Your task to perform on an android device: turn off airplane mode Image 0: 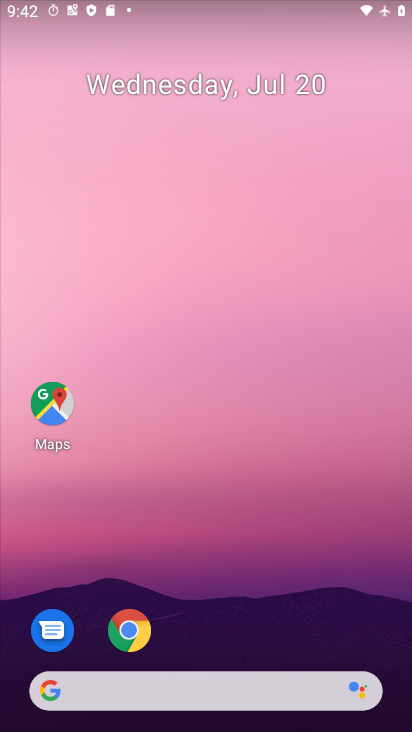
Step 0: drag from (238, 645) to (288, 161)
Your task to perform on an android device: turn off airplane mode Image 1: 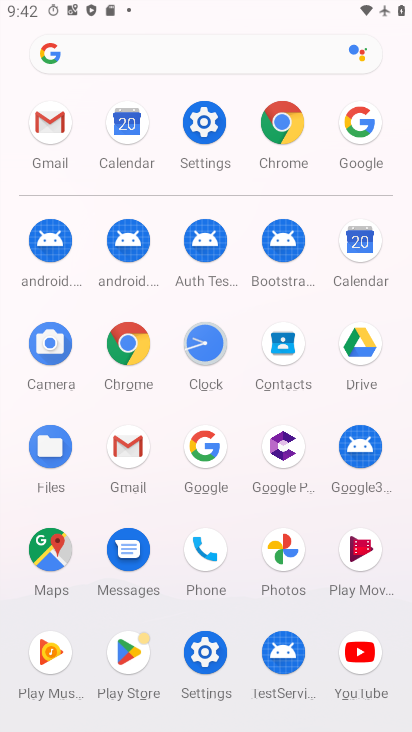
Step 1: click (213, 137)
Your task to perform on an android device: turn off airplane mode Image 2: 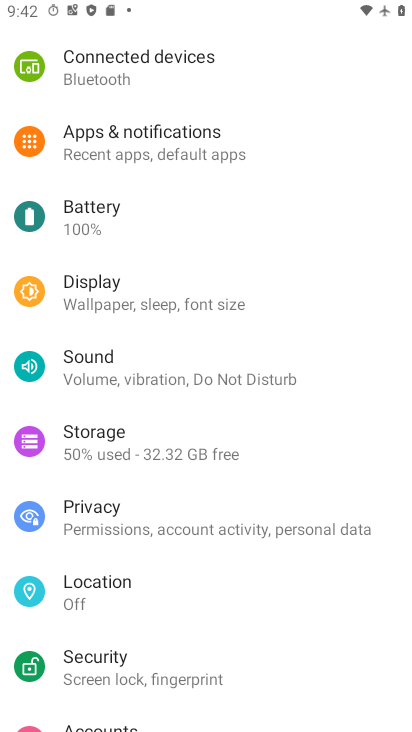
Step 2: drag from (193, 182) to (189, 529)
Your task to perform on an android device: turn off airplane mode Image 3: 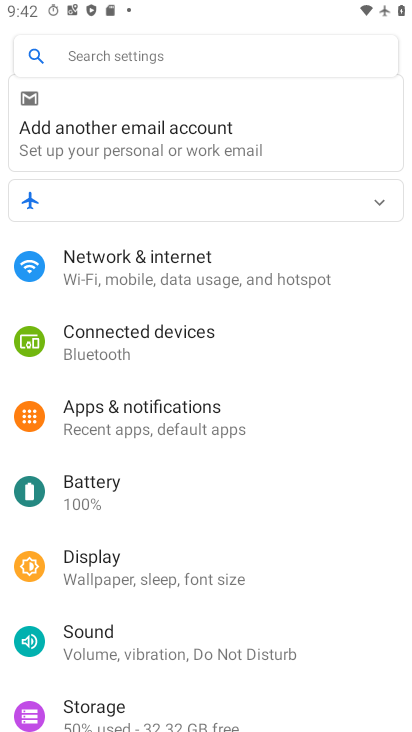
Step 3: click (206, 255)
Your task to perform on an android device: turn off airplane mode Image 4: 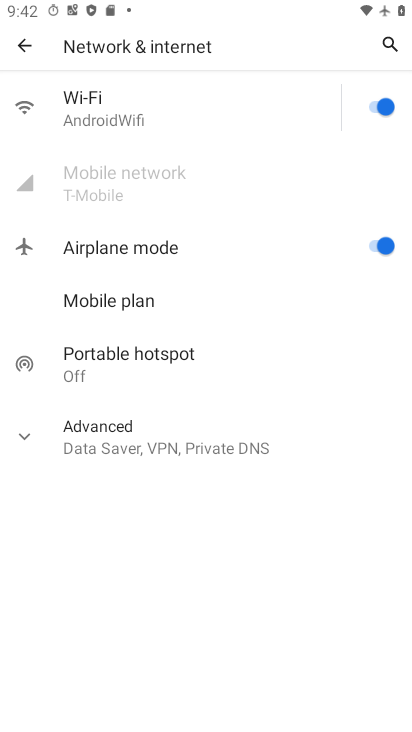
Step 4: click (373, 245)
Your task to perform on an android device: turn off airplane mode Image 5: 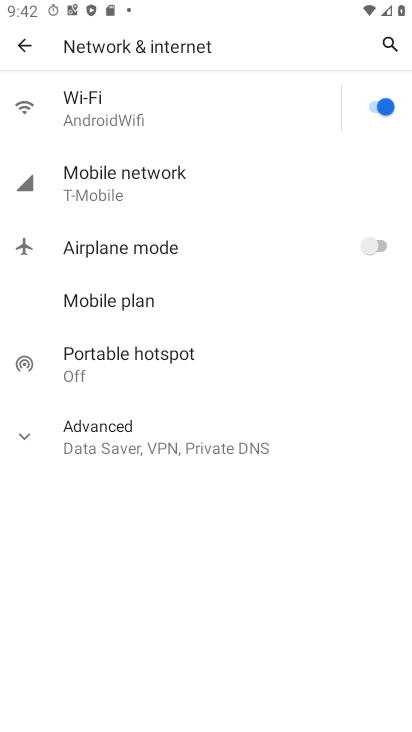
Step 5: task complete